Your task to perform on an android device: Is it going to rain today? Image 0: 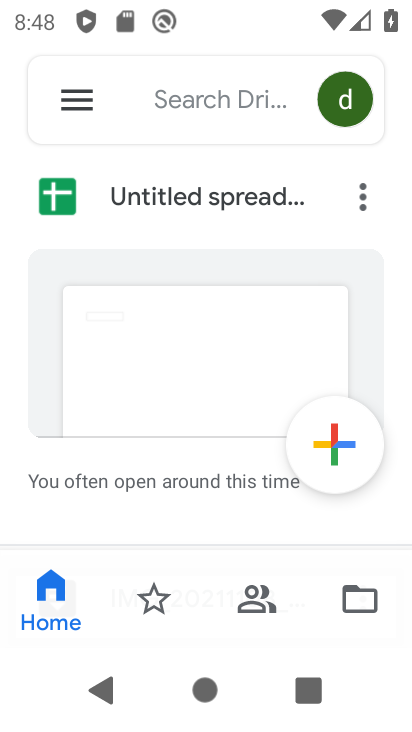
Step 0: press home button
Your task to perform on an android device: Is it going to rain today? Image 1: 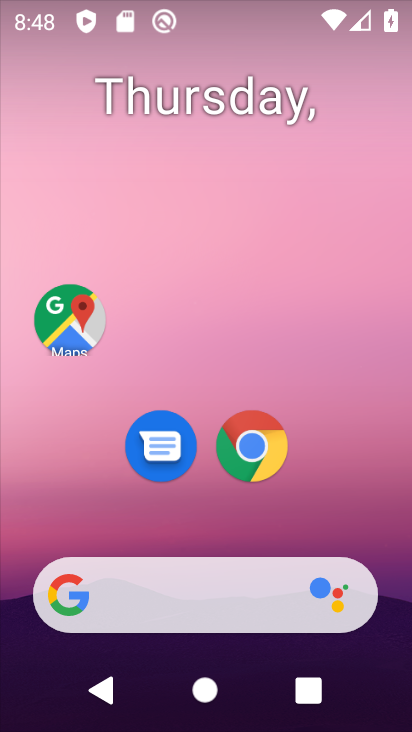
Step 1: click (244, 447)
Your task to perform on an android device: Is it going to rain today? Image 2: 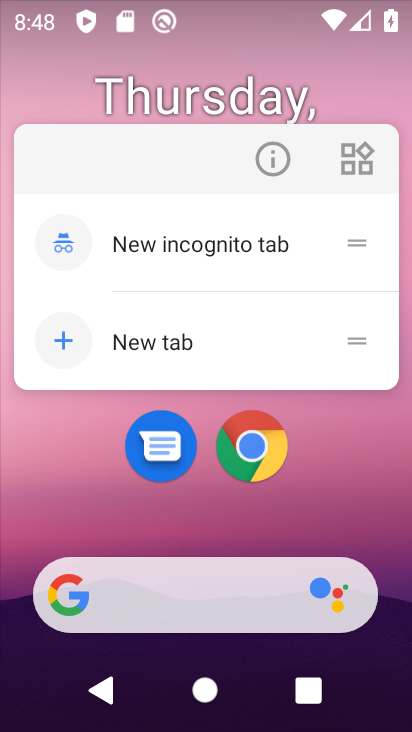
Step 2: click (244, 447)
Your task to perform on an android device: Is it going to rain today? Image 3: 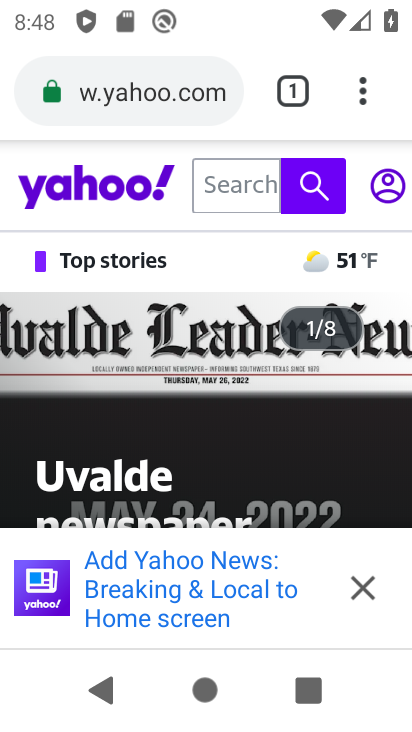
Step 3: click (126, 80)
Your task to perform on an android device: Is it going to rain today? Image 4: 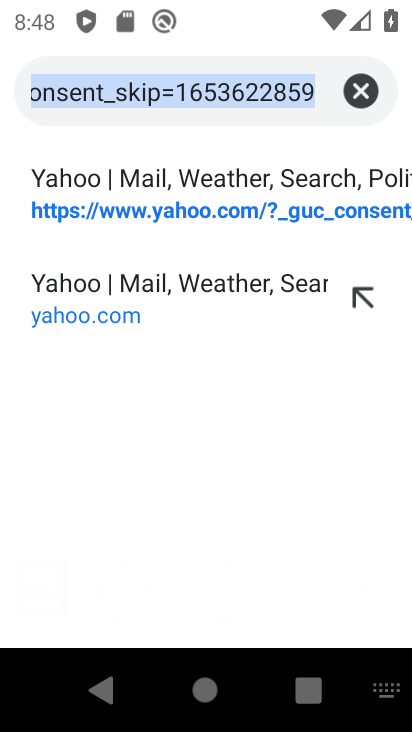
Step 4: click (362, 90)
Your task to perform on an android device: Is it going to rain today? Image 5: 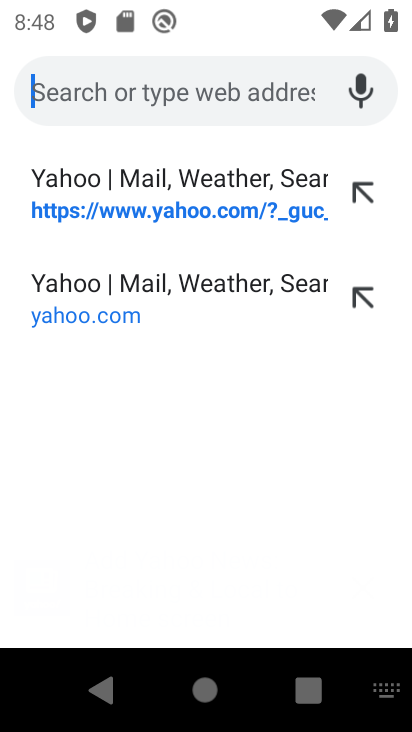
Step 5: type "Is it going to rain today?"
Your task to perform on an android device: Is it going to rain today? Image 6: 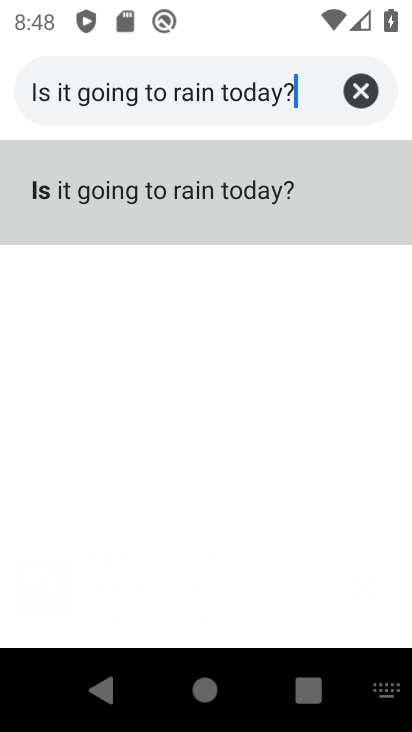
Step 6: type ""
Your task to perform on an android device: Is it going to rain today? Image 7: 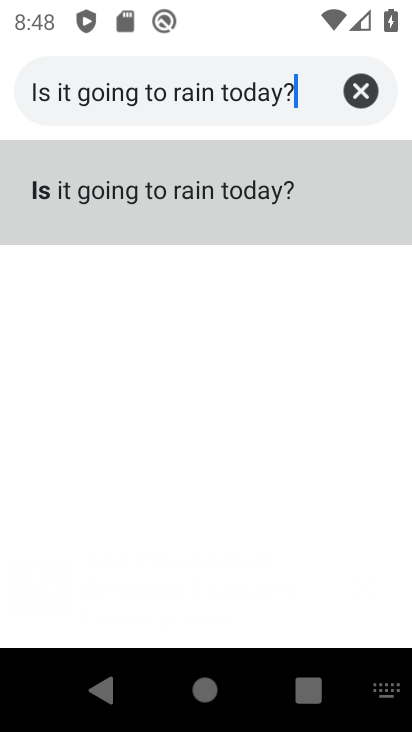
Step 7: click (122, 192)
Your task to perform on an android device: Is it going to rain today? Image 8: 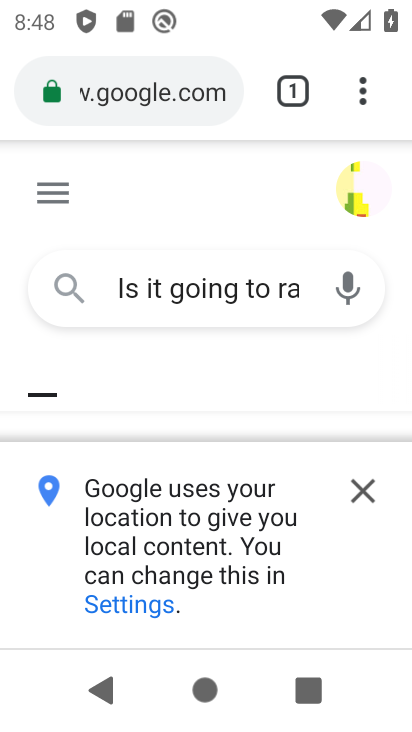
Step 8: click (358, 499)
Your task to perform on an android device: Is it going to rain today? Image 9: 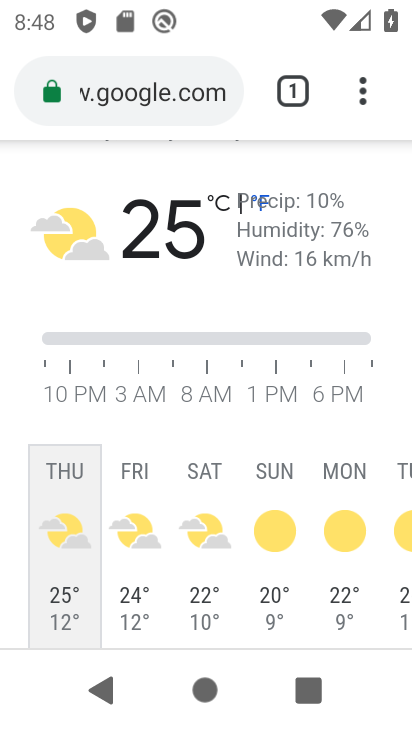
Step 9: task complete